Your task to perform on an android device: change keyboard looks Image 0: 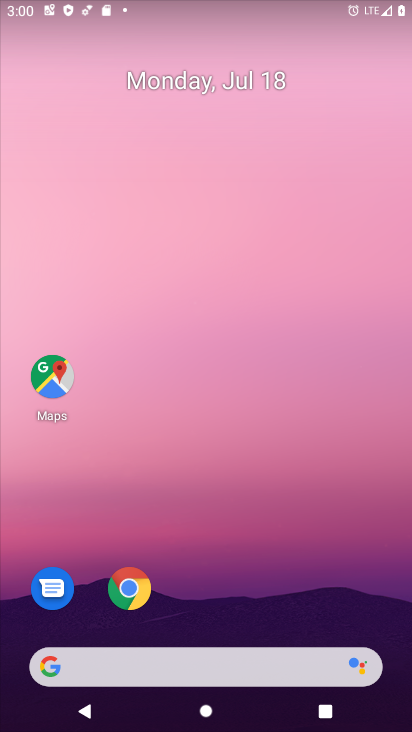
Step 0: drag from (235, 541) to (186, 22)
Your task to perform on an android device: change keyboard looks Image 1: 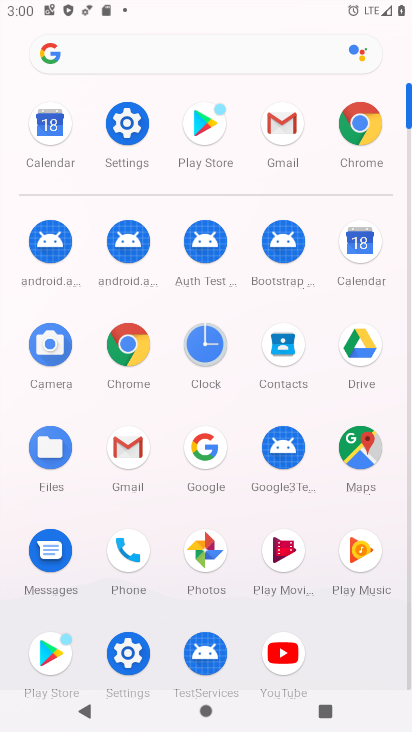
Step 1: click (120, 203)
Your task to perform on an android device: change keyboard looks Image 2: 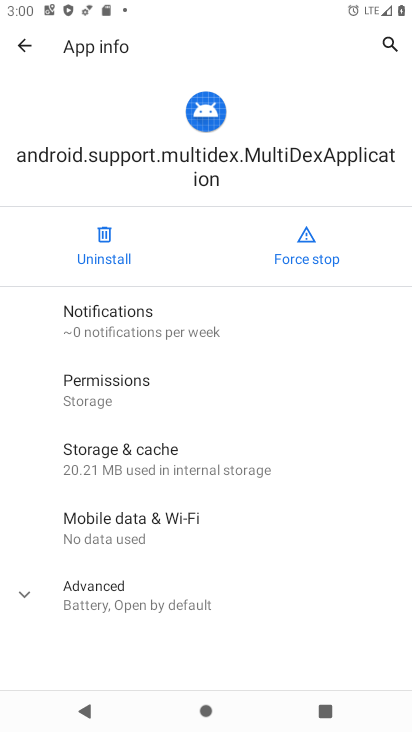
Step 2: click (25, 38)
Your task to perform on an android device: change keyboard looks Image 3: 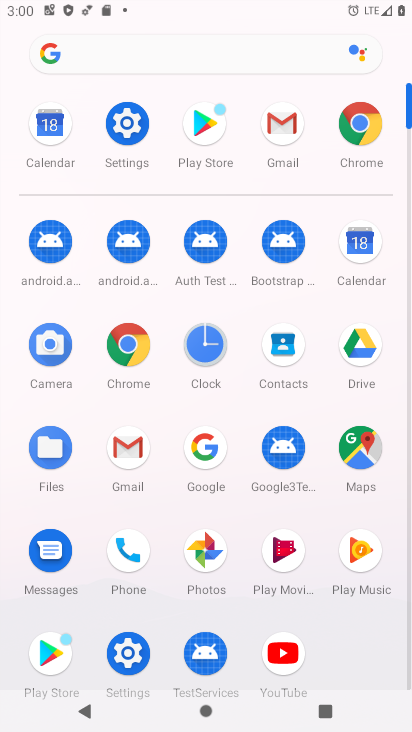
Step 3: click (131, 671)
Your task to perform on an android device: change keyboard looks Image 4: 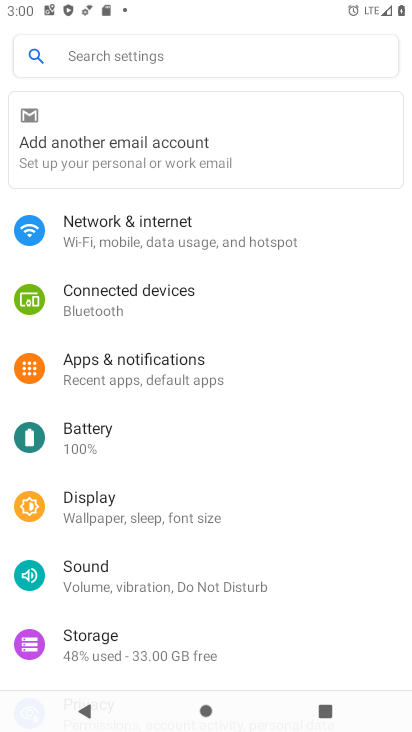
Step 4: drag from (88, 679) to (275, 0)
Your task to perform on an android device: change keyboard looks Image 5: 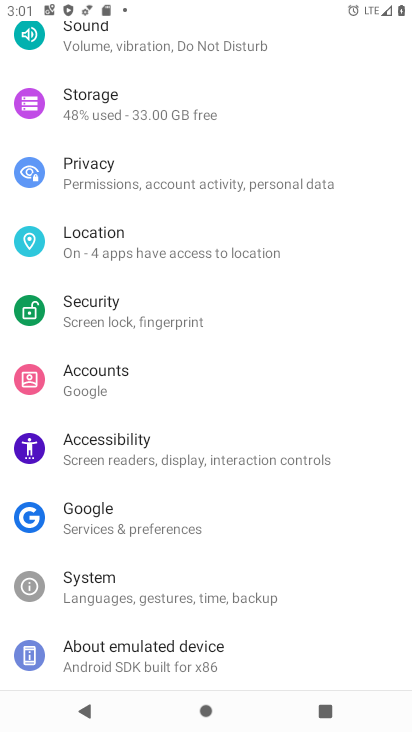
Step 5: click (179, 659)
Your task to perform on an android device: change keyboard looks Image 6: 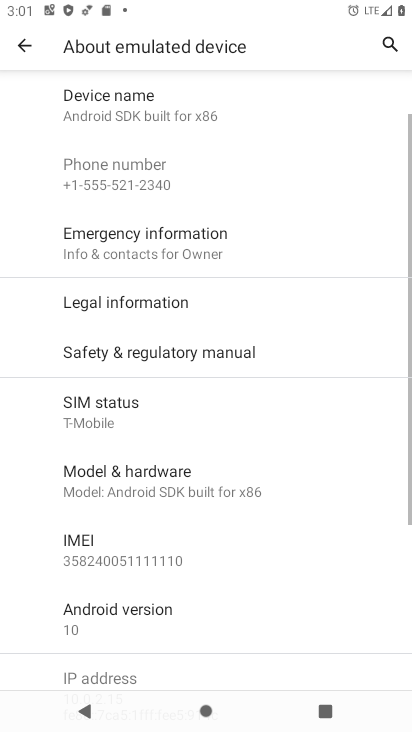
Step 6: click (14, 35)
Your task to perform on an android device: change keyboard looks Image 7: 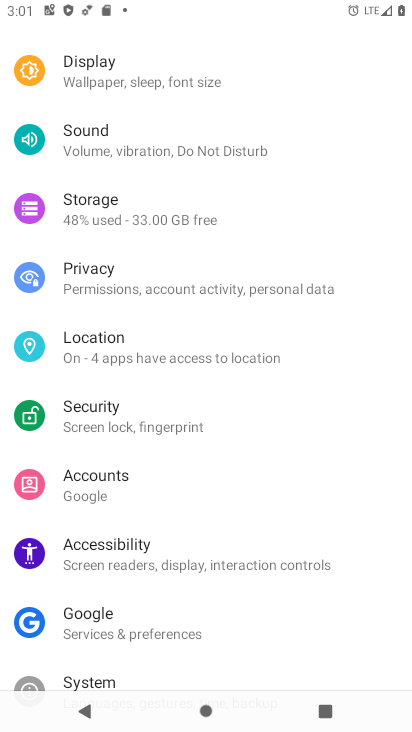
Step 7: click (97, 679)
Your task to perform on an android device: change keyboard looks Image 8: 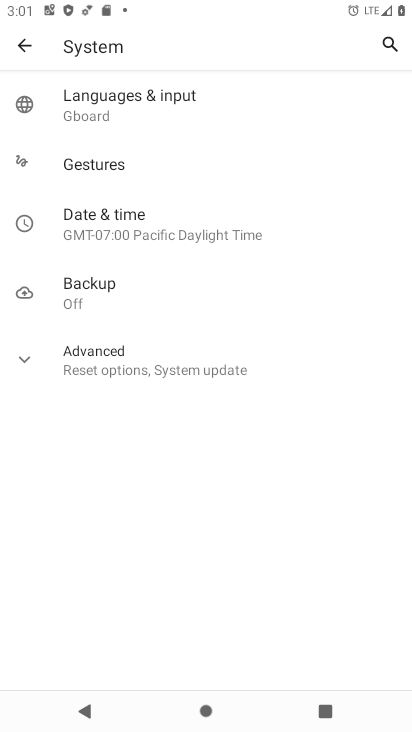
Step 8: click (134, 105)
Your task to perform on an android device: change keyboard looks Image 9: 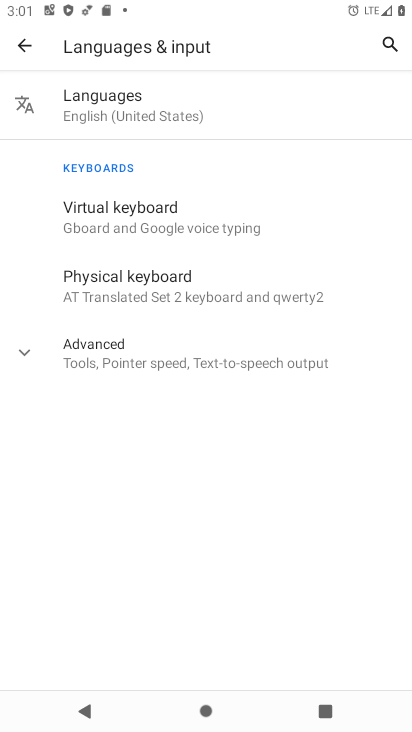
Step 9: click (150, 214)
Your task to perform on an android device: change keyboard looks Image 10: 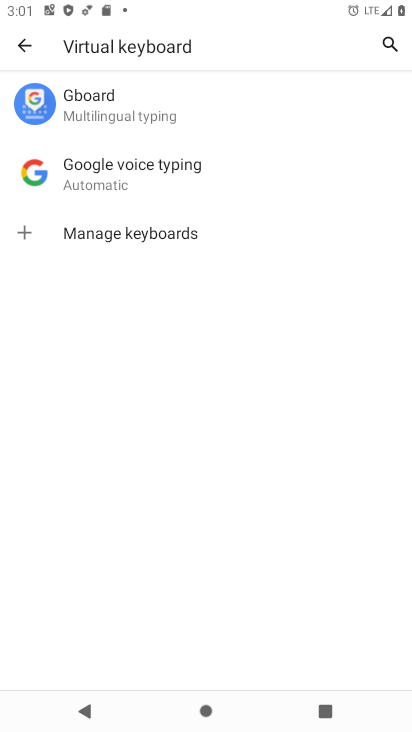
Step 10: click (142, 92)
Your task to perform on an android device: change keyboard looks Image 11: 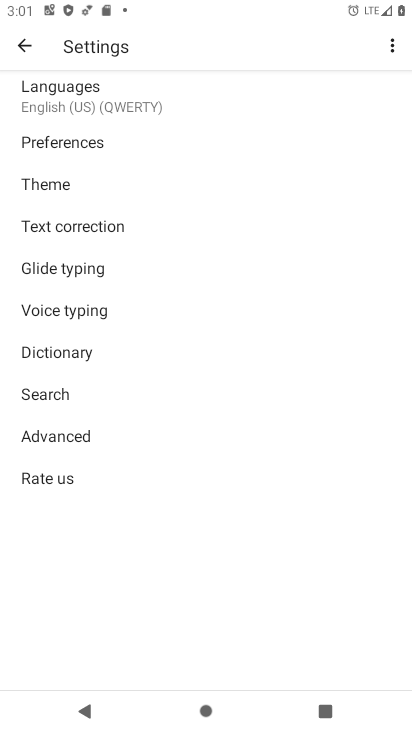
Step 11: click (115, 174)
Your task to perform on an android device: change keyboard looks Image 12: 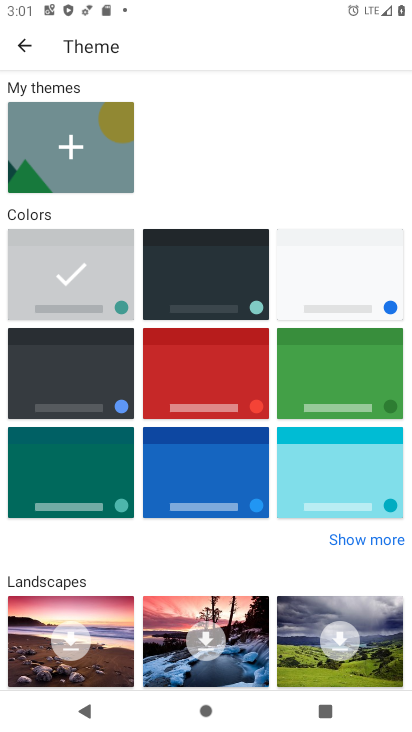
Step 12: click (351, 412)
Your task to perform on an android device: change keyboard looks Image 13: 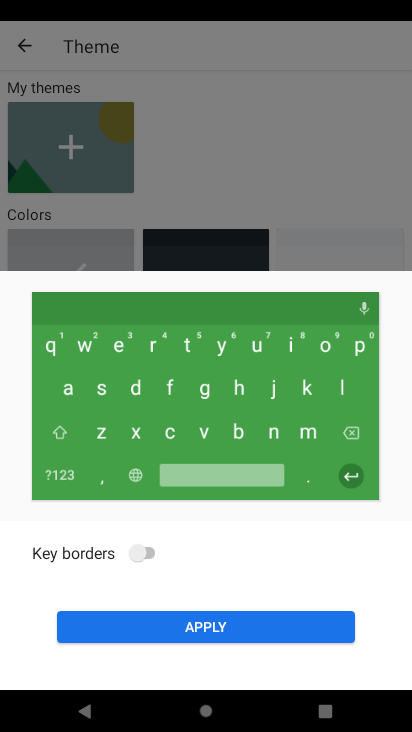
Step 13: click (206, 622)
Your task to perform on an android device: change keyboard looks Image 14: 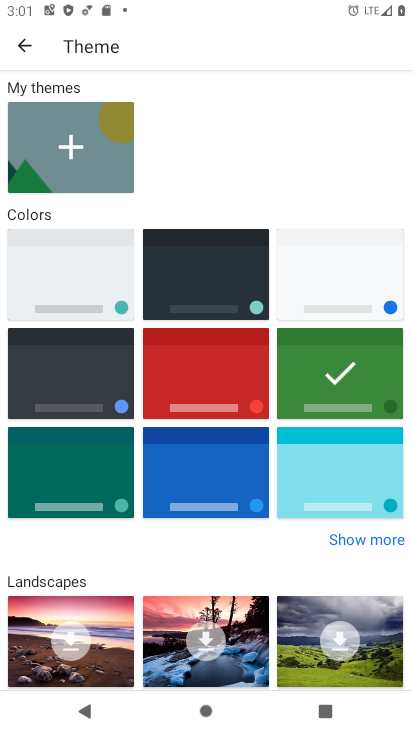
Step 14: task complete